Your task to perform on an android device: Open Android settings Image 0: 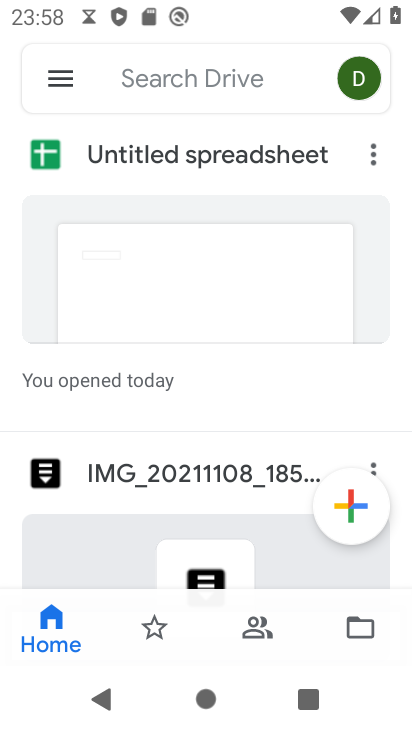
Step 0: press home button
Your task to perform on an android device: Open Android settings Image 1: 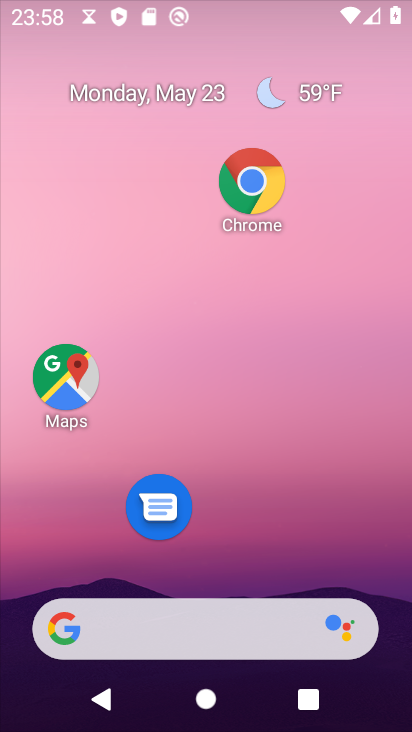
Step 1: drag from (224, 552) to (230, 291)
Your task to perform on an android device: Open Android settings Image 2: 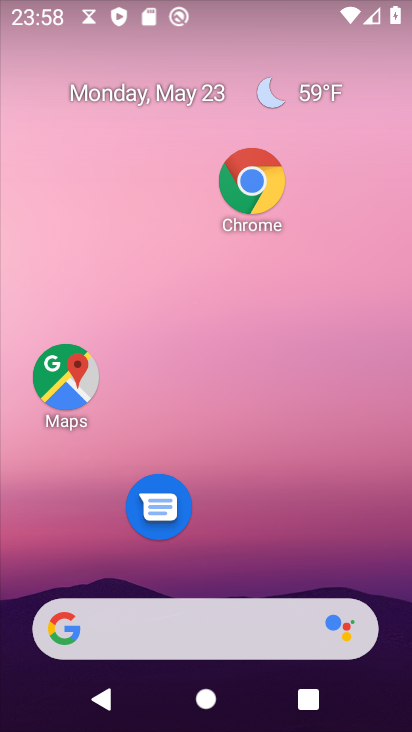
Step 2: drag from (250, 566) to (236, 265)
Your task to perform on an android device: Open Android settings Image 3: 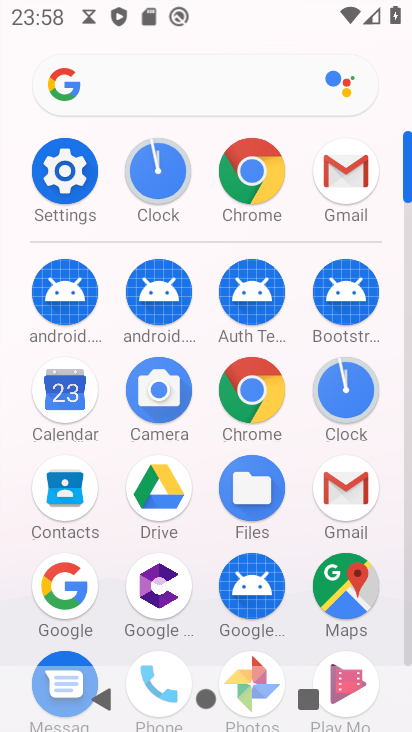
Step 3: click (63, 160)
Your task to perform on an android device: Open Android settings Image 4: 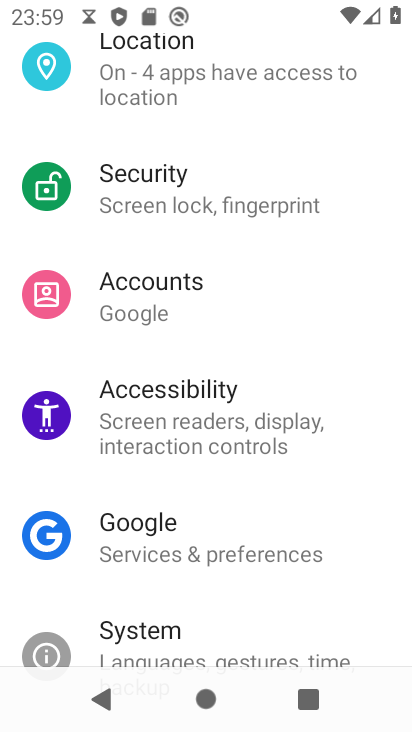
Step 4: task complete